Your task to perform on an android device: Open network settings Image 0: 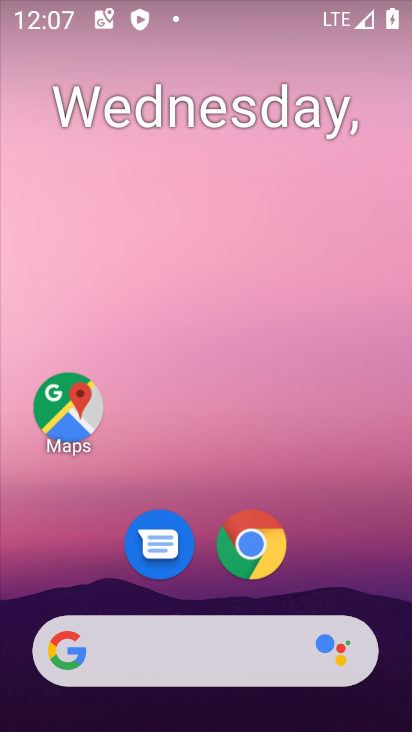
Step 0: drag from (389, 635) to (261, 70)
Your task to perform on an android device: Open network settings Image 1: 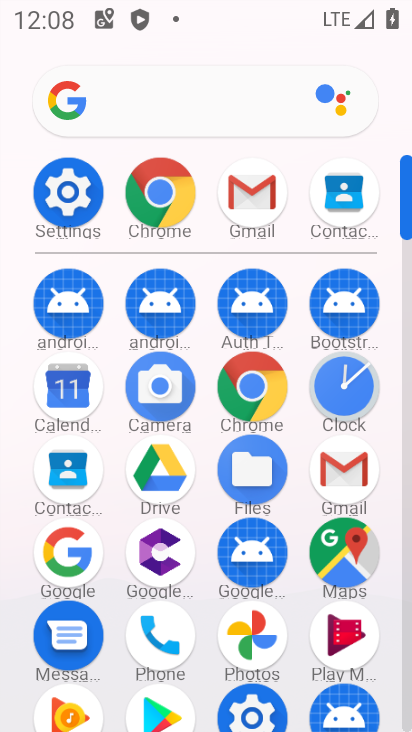
Step 1: click (55, 204)
Your task to perform on an android device: Open network settings Image 2: 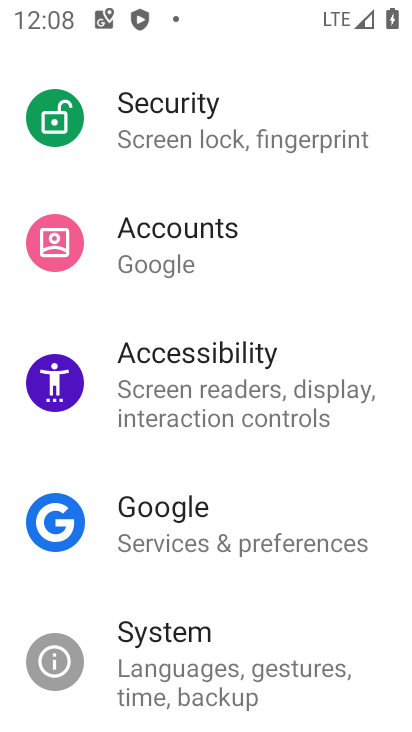
Step 2: drag from (215, 181) to (226, 723)
Your task to perform on an android device: Open network settings Image 3: 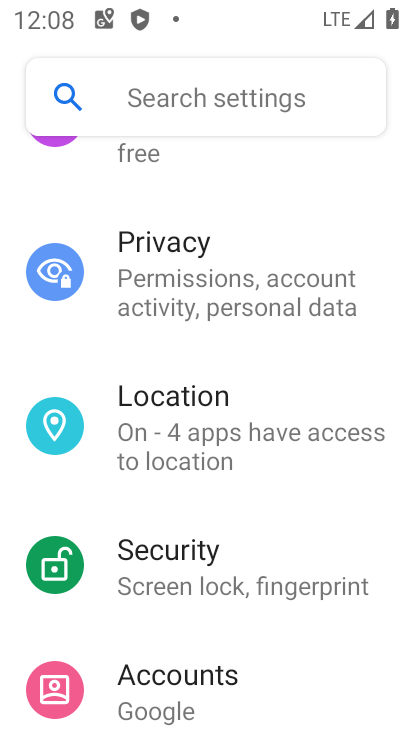
Step 3: drag from (215, 261) to (202, 716)
Your task to perform on an android device: Open network settings Image 4: 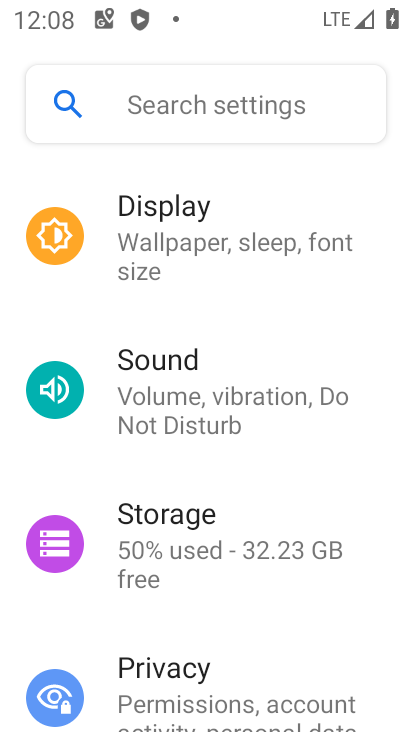
Step 4: drag from (199, 202) to (148, 699)
Your task to perform on an android device: Open network settings Image 5: 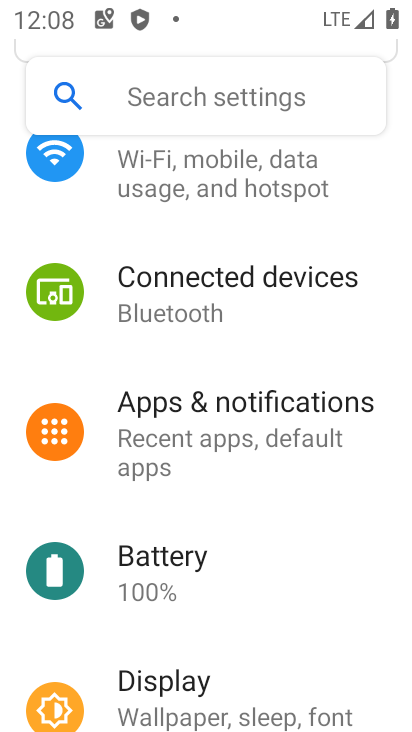
Step 5: drag from (197, 231) to (238, 696)
Your task to perform on an android device: Open network settings Image 6: 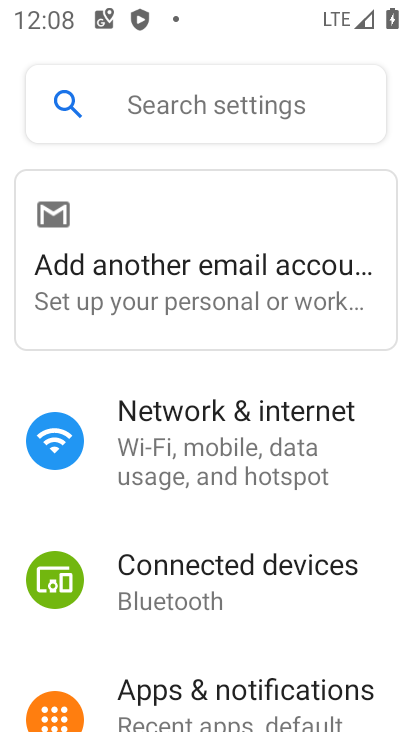
Step 6: click (300, 418)
Your task to perform on an android device: Open network settings Image 7: 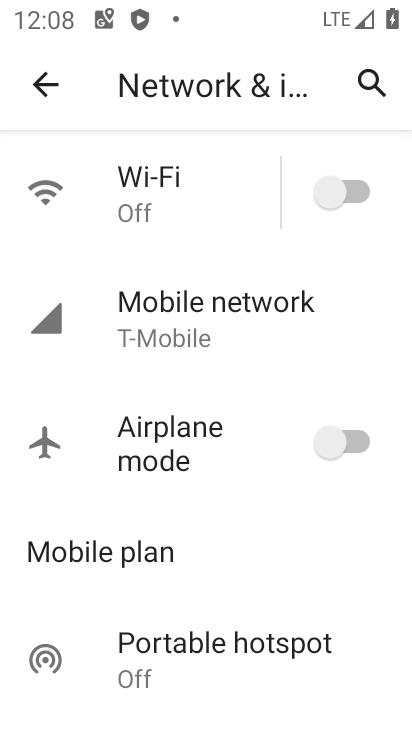
Step 7: task complete